Your task to perform on an android device: see creations saved in the google photos Image 0: 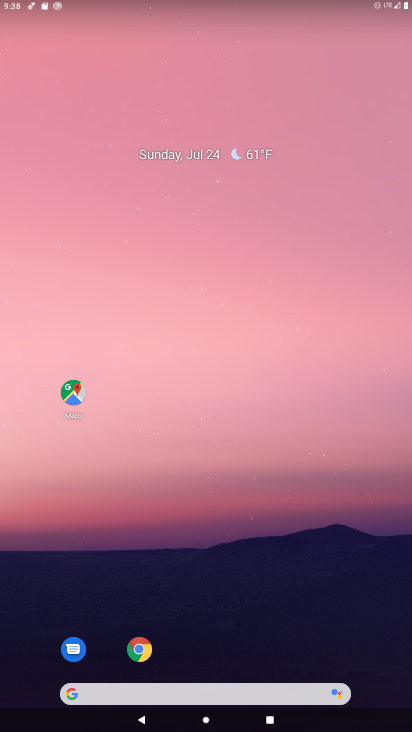
Step 0: drag from (317, 678) to (243, 157)
Your task to perform on an android device: see creations saved in the google photos Image 1: 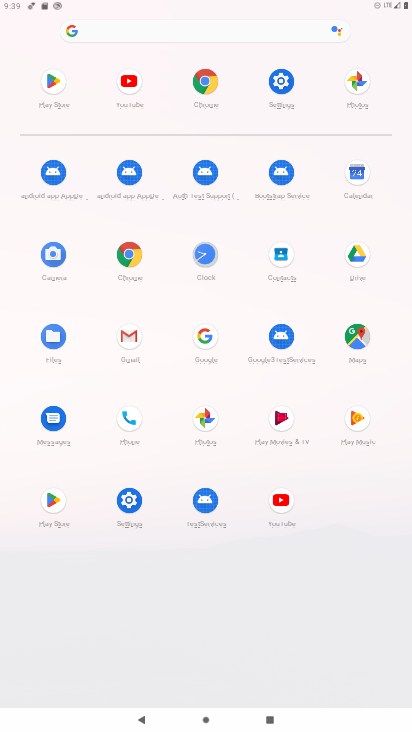
Step 1: click (211, 409)
Your task to perform on an android device: see creations saved in the google photos Image 2: 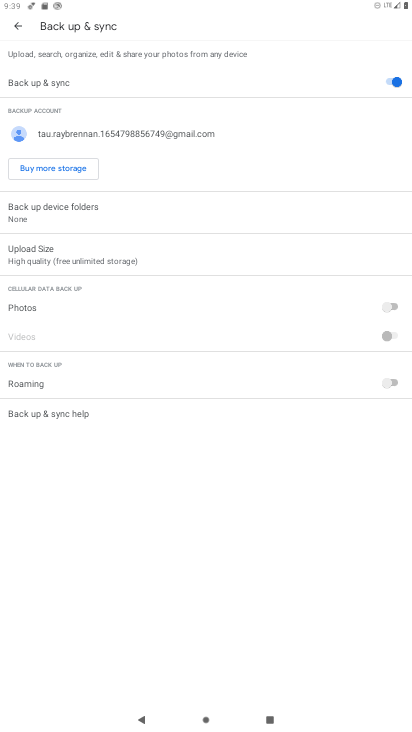
Step 2: click (20, 22)
Your task to perform on an android device: see creations saved in the google photos Image 3: 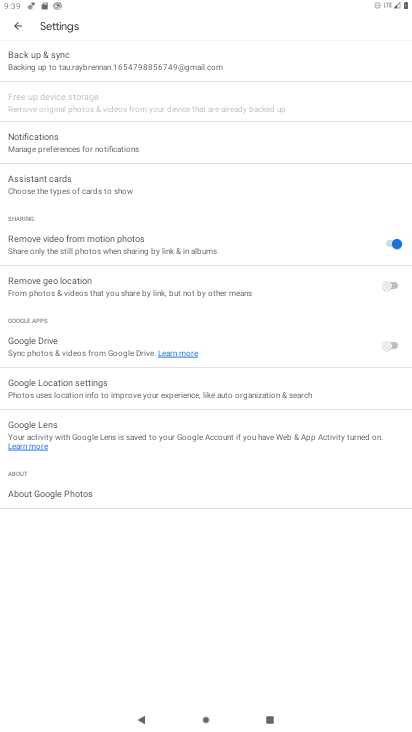
Step 3: click (26, 29)
Your task to perform on an android device: see creations saved in the google photos Image 4: 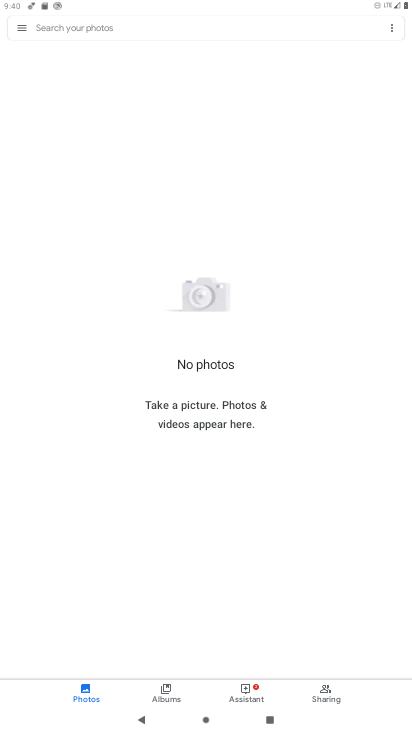
Step 4: click (159, 696)
Your task to perform on an android device: see creations saved in the google photos Image 5: 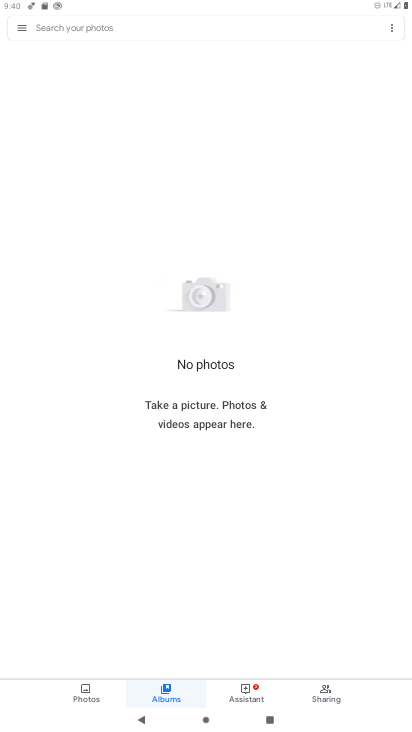
Step 5: click (159, 692)
Your task to perform on an android device: see creations saved in the google photos Image 6: 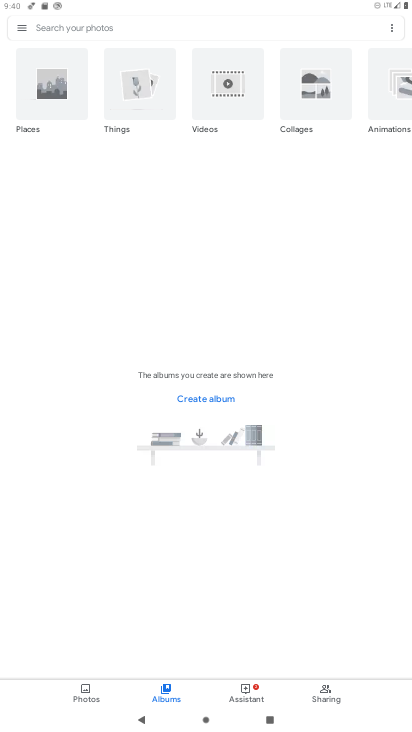
Step 6: drag from (362, 110) to (53, 96)
Your task to perform on an android device: see creations saved in the google photos Image 7: 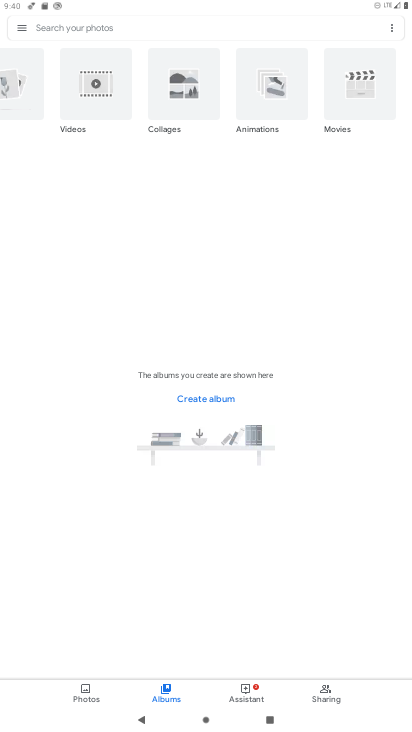
Step 7: click (235, 704)
Your task to perform on an android device: see creations saved in the google photos Image 8: 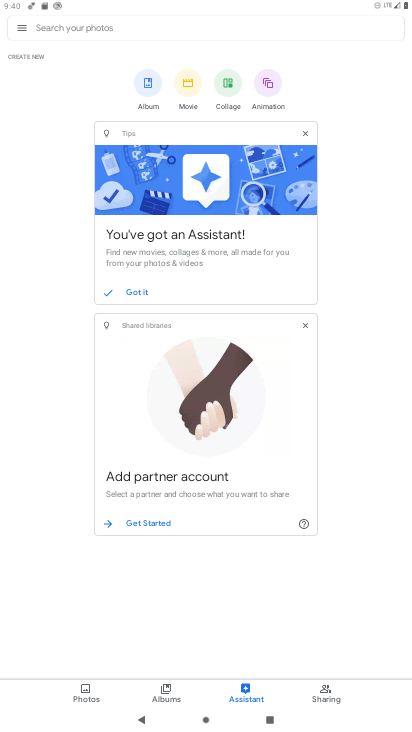
Step 8: task complete